Your task to perform on an android device: clear all cookies in the chrome app Image 0: 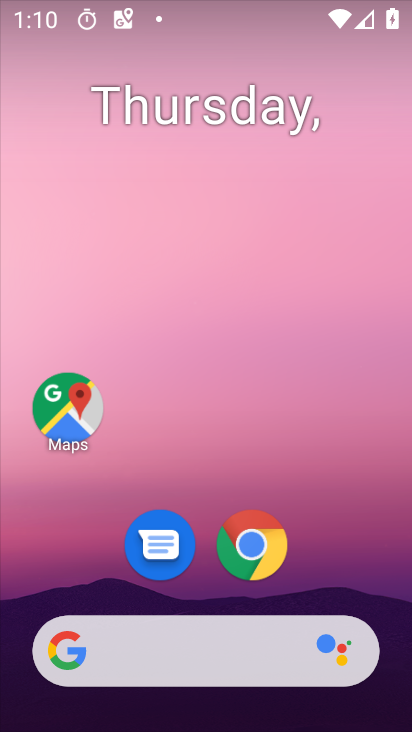
Step 0: drag from (152, 669) to (132, 111)
Your task to perform on an android device: clear all cookies in the chrome app Image 1: 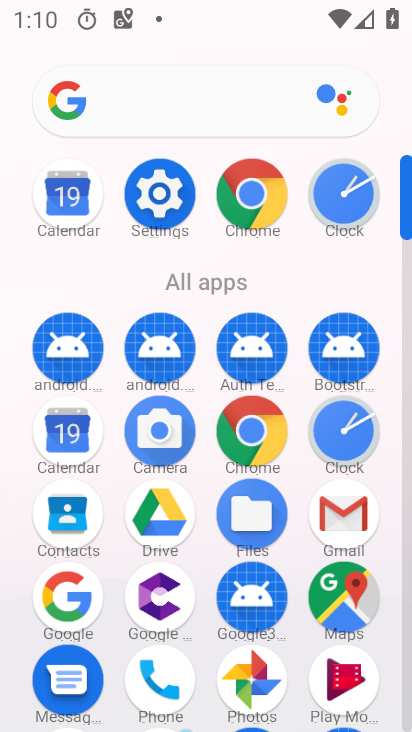
Step 1: click (264, 437)
Your task to perform on an android device: clear all cookies in the chrome app Image 2: 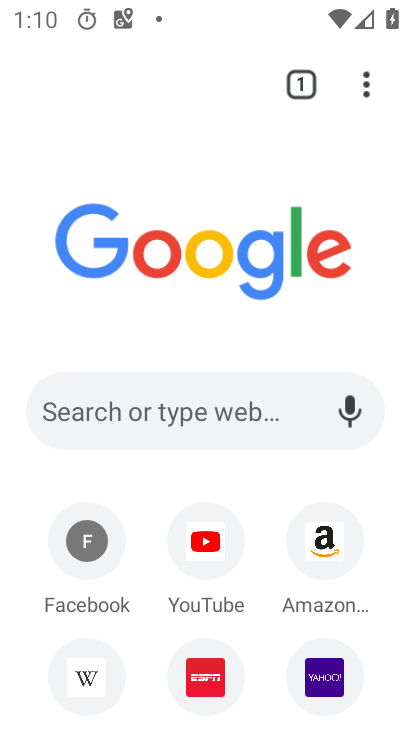
Step 2: click (364, 89)
Your task to perform on an android device: clear all cookies in the chrome app Image 3: 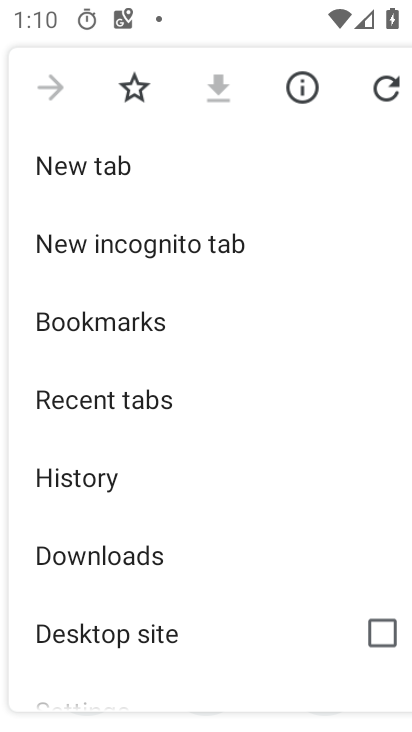
Step 3: drag from (201, 630) to (175, 173)
Your task to perform on an android device: clear all cookies in the chrome app Image 4: 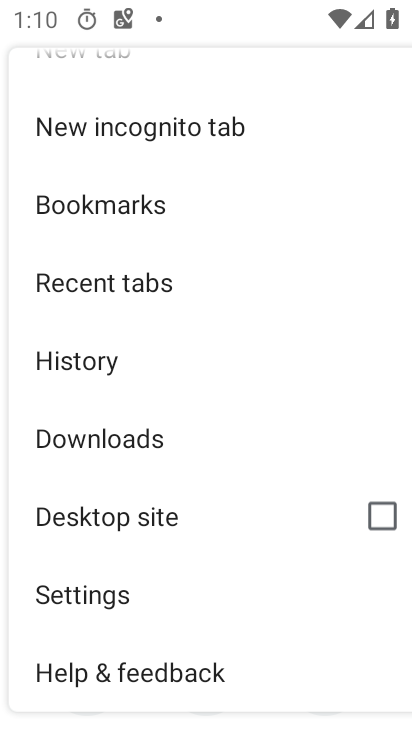
Step 4: click (119, 603)
Your task to perform on an android device: clear all cookies in the chrome app Image 5: 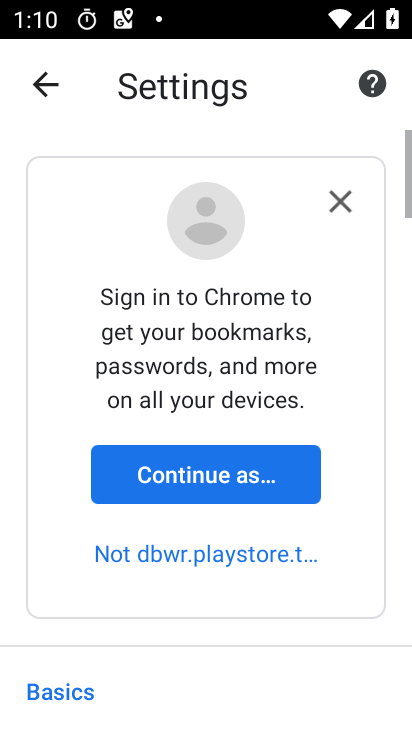
Step 5: drag from (211, 669) to (216, 123)
Your task to perform on an android device: clear all cookies in the chrome app Image 6: 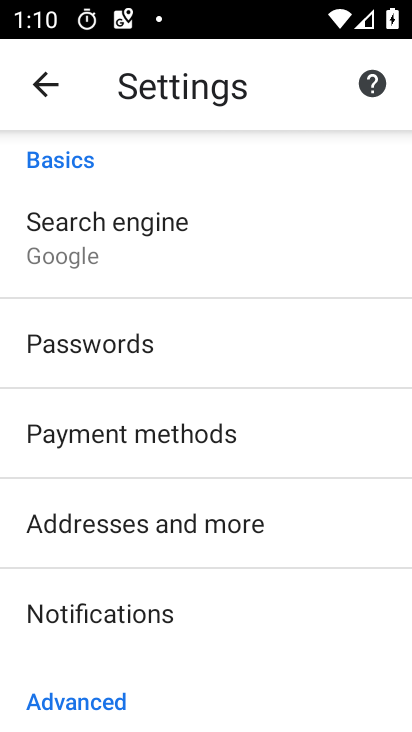
Step 6: drag from (205, 702) to (208, 499)
Your task to perform on an android device: clear all cookies in the chrome app Image 7: 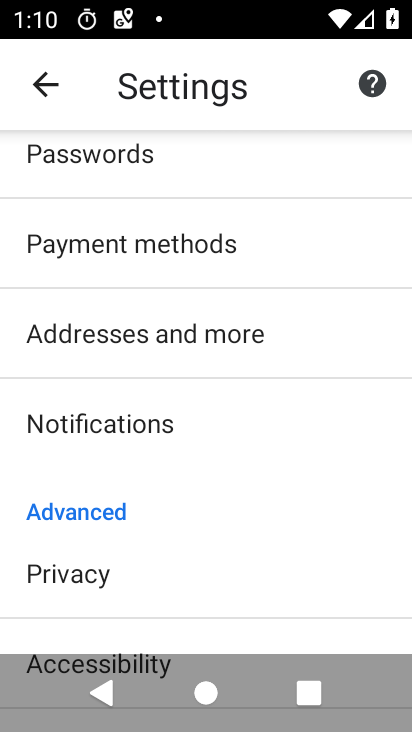
Step 7: click (145, 573)
Your task to perform on an android device: clear all cookies in the chrome app Image 8: 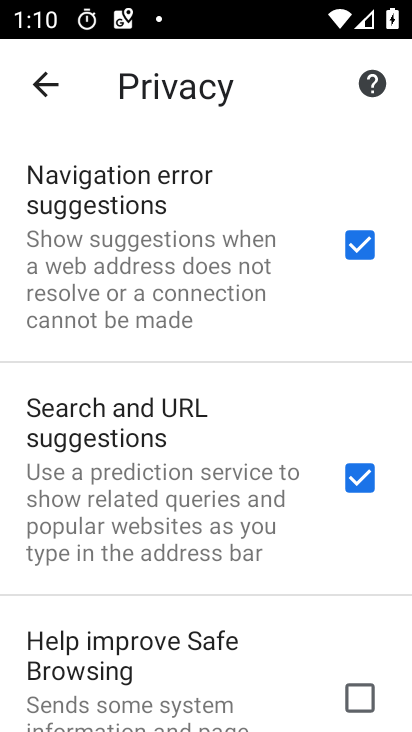
Step 8: drag from (215, 716) to (181, 292)
Your task to perform on an android device: clear all cookies in the chrome app Image 9: 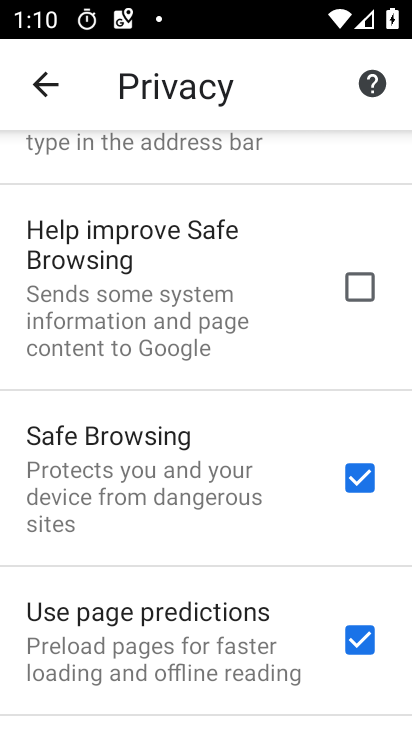
Step 9: drag from (253, 700) to (256, 282)
Your task to perform on an android device: clear all cookies in the chrome app Image 10: 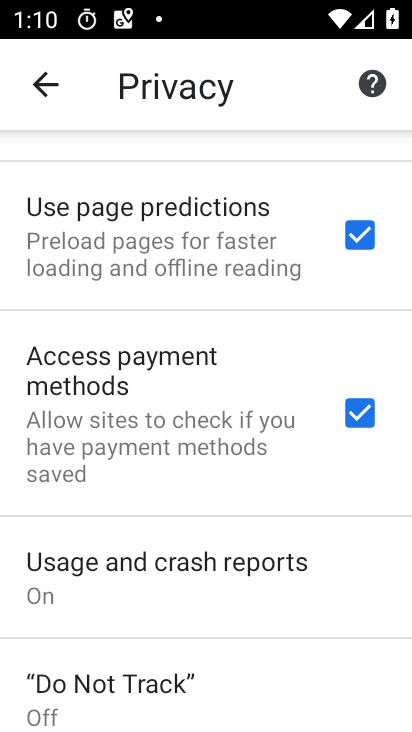
Step 10: drag from (240, 684) to (221, 226)
Your task to perform on an android device: clear all cookies in the chrome app Image 11: 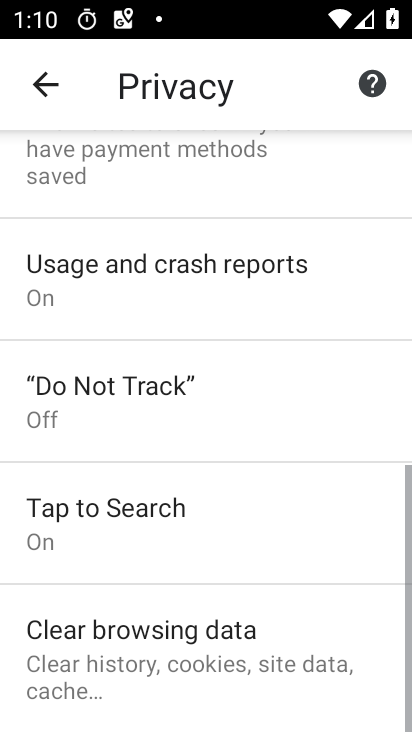
Step 11: click (191, 673)
Your task to perform on an android device: clear all cookies in the chrome app Image 12: 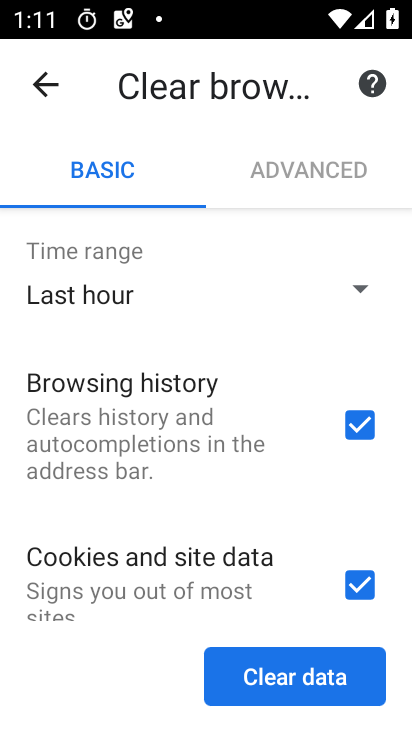
Step 12: click (279, 679)
Your task to perform on an android device: clear all cookies in the chrome app Image 13: 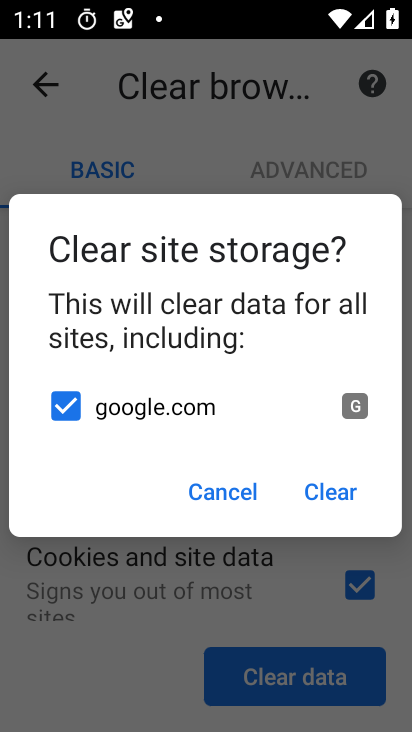
Step 13: click (332, 487)
Your task to perform on an android device: clear all cookies in the chrome app Image 14: 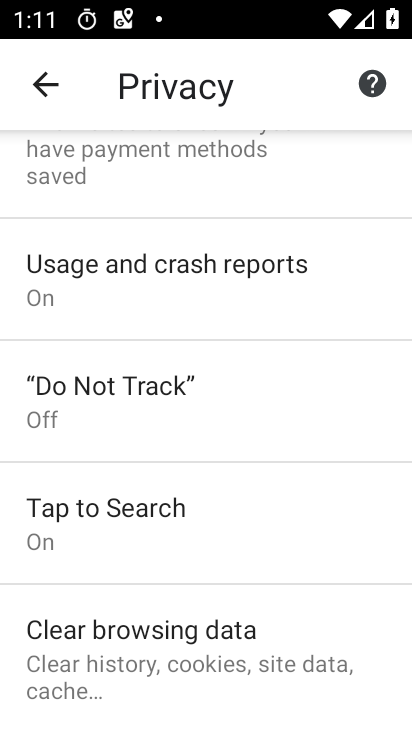
Step 14: task complete